Your task to perform on an android device: Go to location settings Image 0: 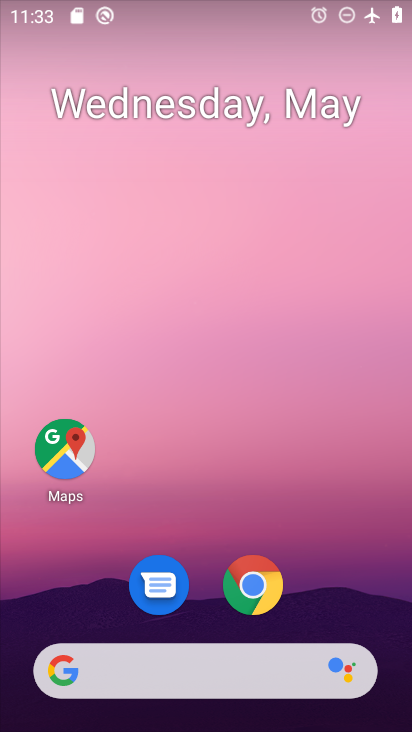
Step 0: drag from (364, 555) to (298, 82)
Your task to perform on an android device: Go to location settings Image 1: 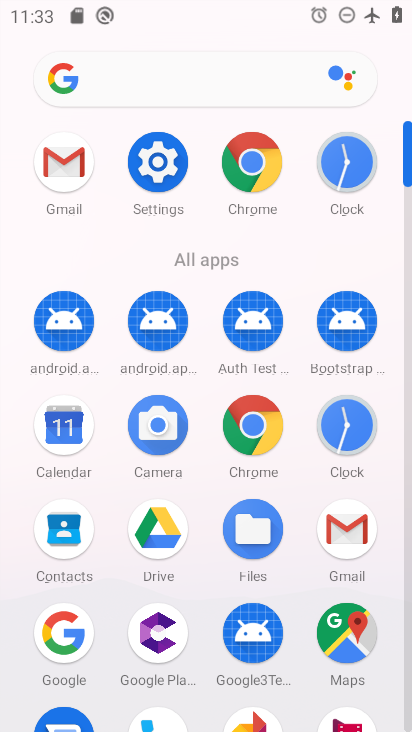
Step 1: click (162, 163)
Your task to perform on an android device: Go to location settings Image 2: 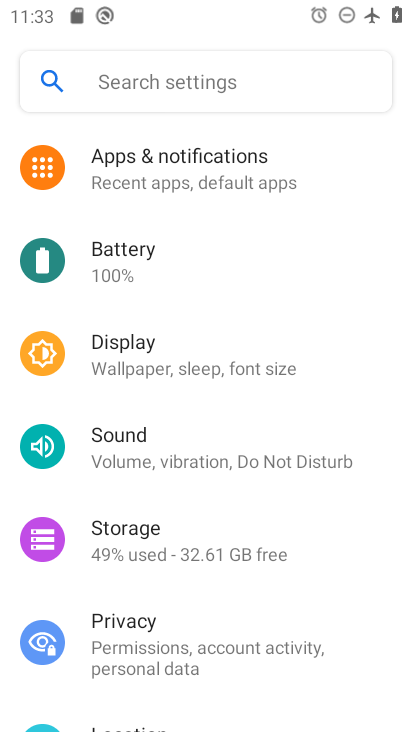
Step 2: drag from (198, 556) to (192, 193)
Your task to perform on an android device: Go to location settings Image 3: 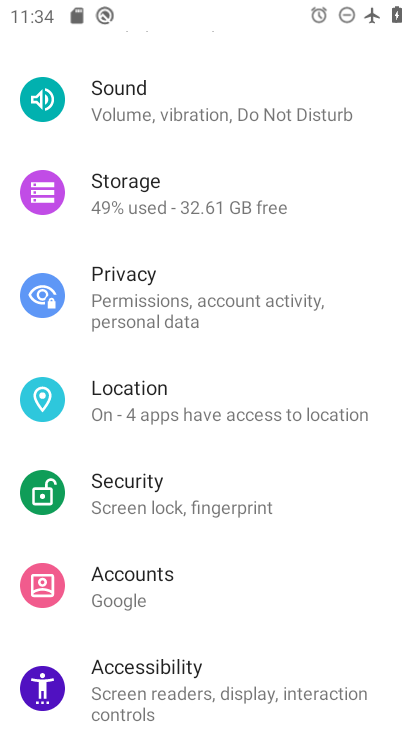
Step 3: click (197, 403)
Your task to perform on an android device: Go to location settings Image 4: 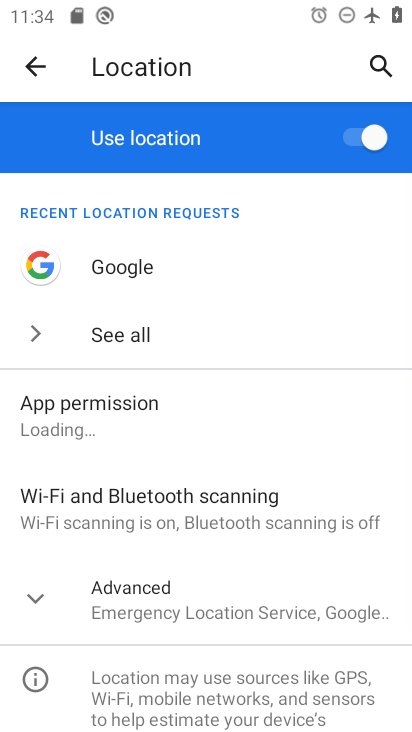
Step 4: task complete